Your task to perform on an android device: turn on javascript in the chrome app Image 0: 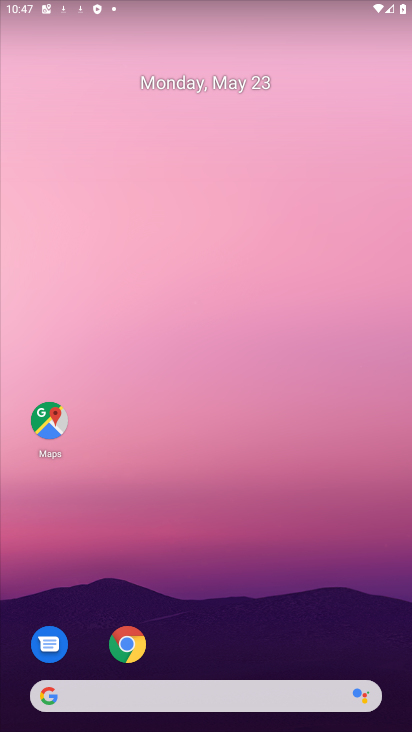
Step 0: drag from (239, 728) to (225, 49)
Your task to perform on an android device: turn on javascript in the chrome app Image 1: 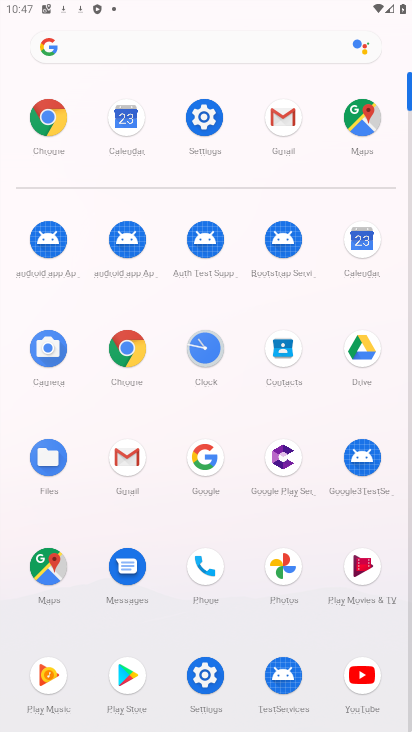
Step 1: click (50, 115)
Your task to perform on an android device: turn on javascript in the chrome app Image 2: 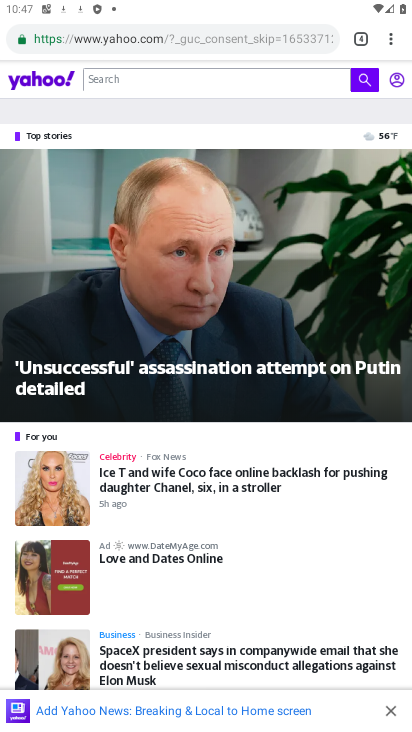
Step 2: click (389, 45)
Your task to perform on an android device: turn on javascript in the chrome app Image 3: 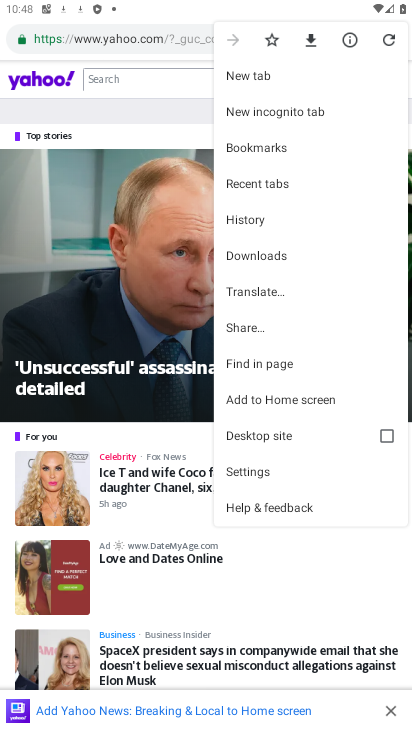
Step 3: click (271, 470)
Your task to perform on an android device: turn on javascript in the chrome app Image 4: 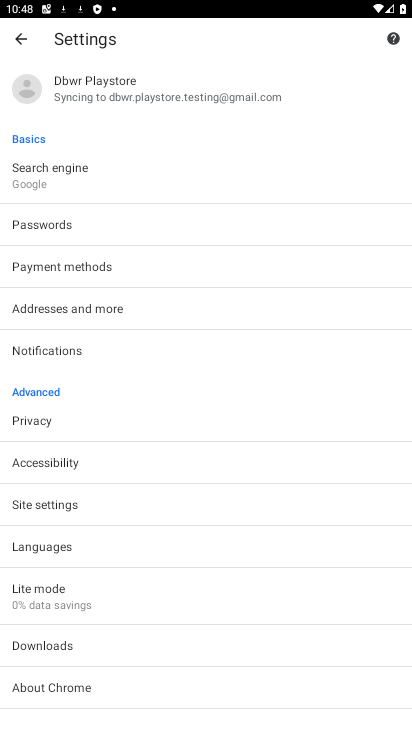
Step 4: click (63, 508)
Your task to perform on an android device: turn on javascript in the chrome app Image 5: 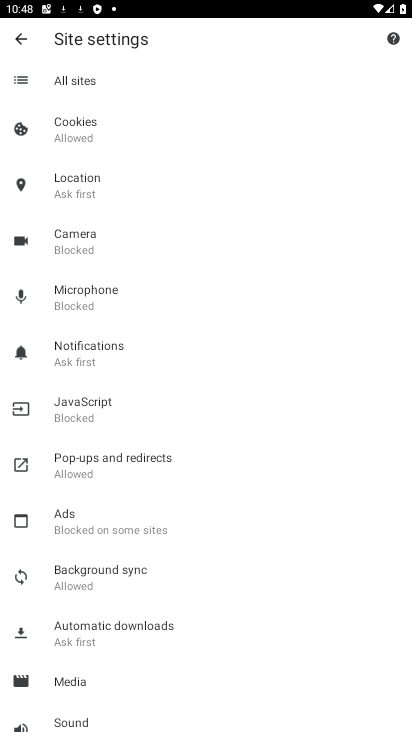
Step 5: click (93, 408)
Your task to perform on an android device: turn on javascript in the chrome app Image 6: 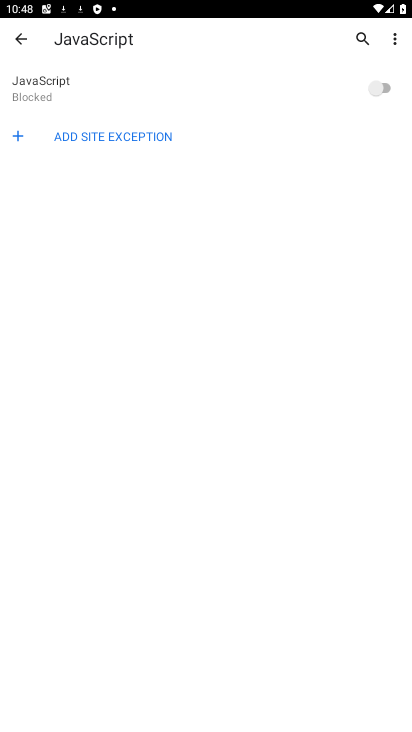
Step 6: task complete